Your task to perform on an android device: find which apps use the phone's location Image 0: 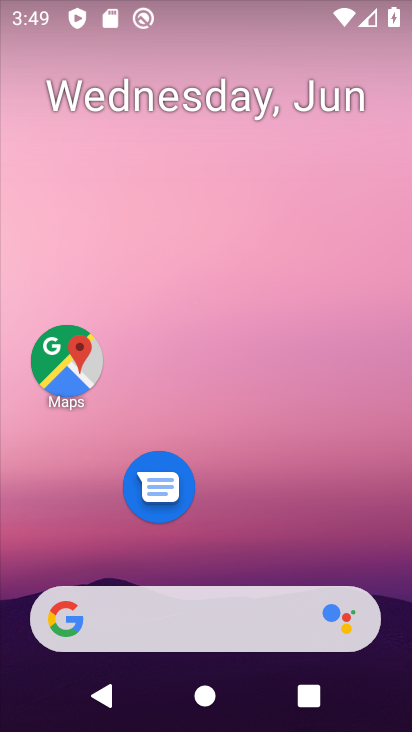
Step 0: drag from (231, 563) to (317, 22)
Your task to perform on an android device: find which apps use the phone's location Image 1: 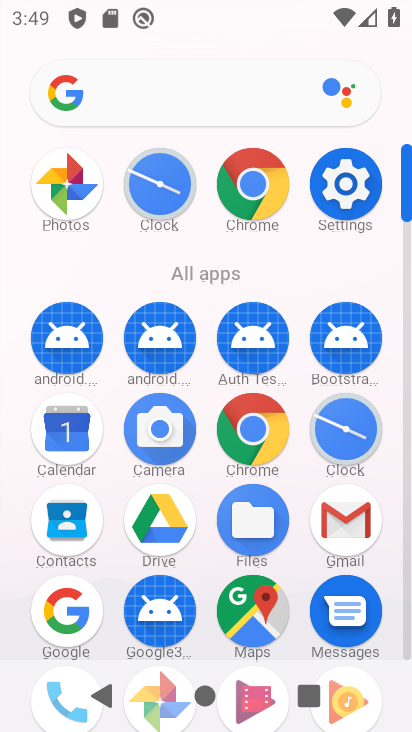
Step 1: click (363, 216)
Your task to perform on an android device: find which apps use the phone's location Image 2: 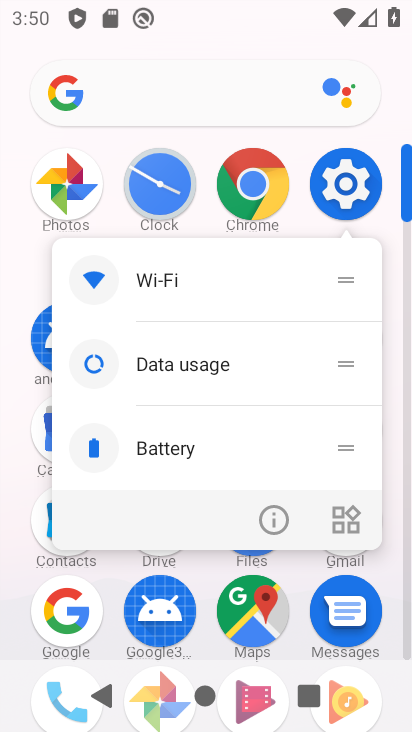
Step 2: click (349, 169)
Your task to perform on an android device: find which apps use the phone's location Image 3: 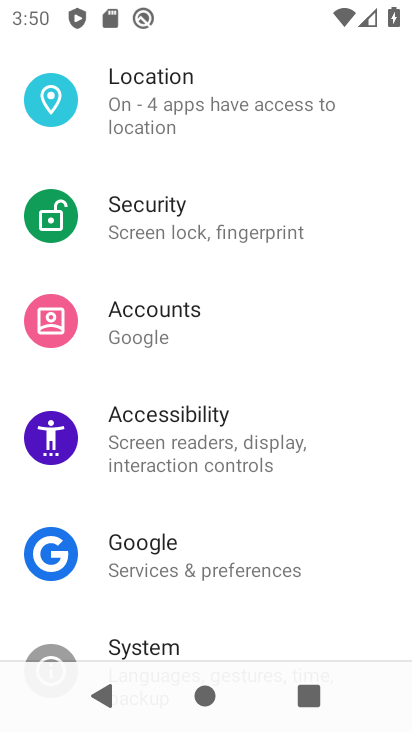
Step 3: click (210, 120)
Your task to perform on an android device: find which apps use the phone's location Image 4: 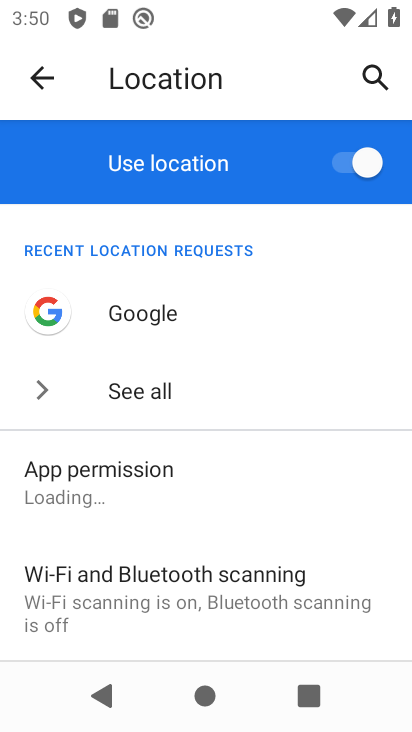
Step 4: drag from (169, 586) to (196, 293)
Your task to perform on an android device: find which apps use the phone's location Image 5: 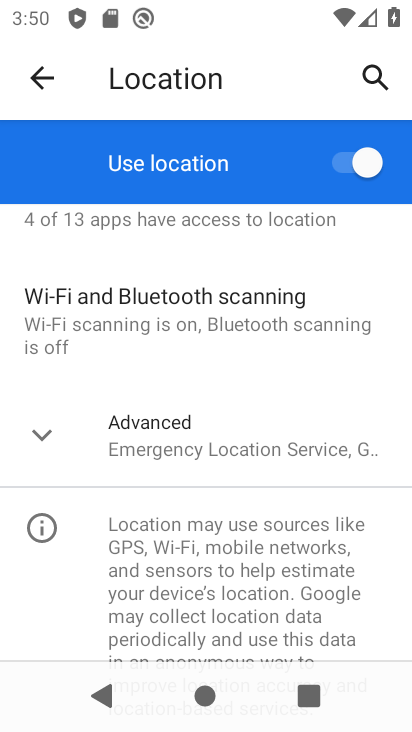
Step 5: click (184, 452)
Your task to perform on an android device: find which apps use the phone's location Image 6: 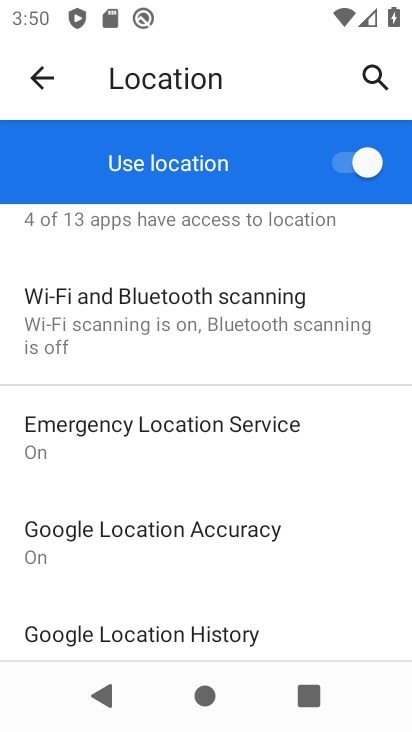
Step 6: drag from (190, 337) to (187, 585)
Your task to perform on an android device: find which apps use the phone's location Image 7: 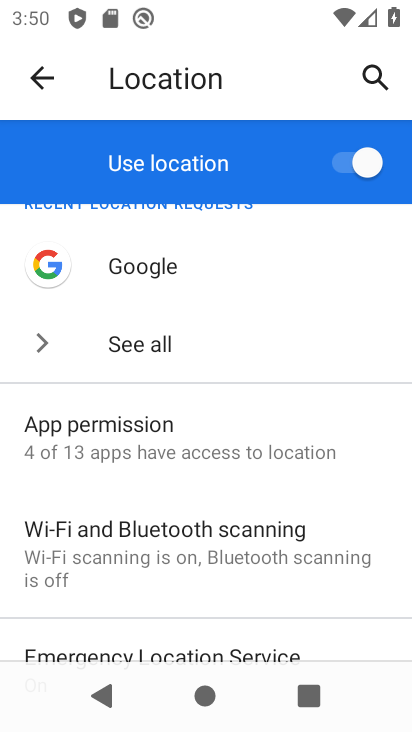
Step 7: click (140, 439)
Your task to perform on an android device: find which apps use the phone's location Image 8: 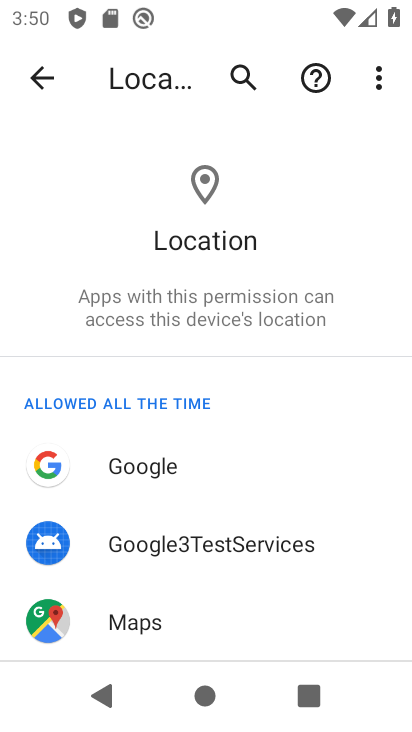
Step 8: task complete